Your task to perform on an android device: Show me productivity apps on the Play Store Image 0: 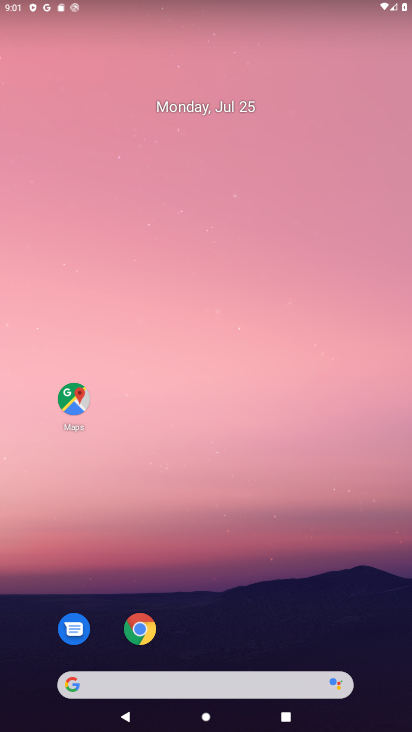
Step 0: drag from (225, 643) to (222, 149)
Your task to perform on an android device: Show me productivity apps on the Play Store Image 1: 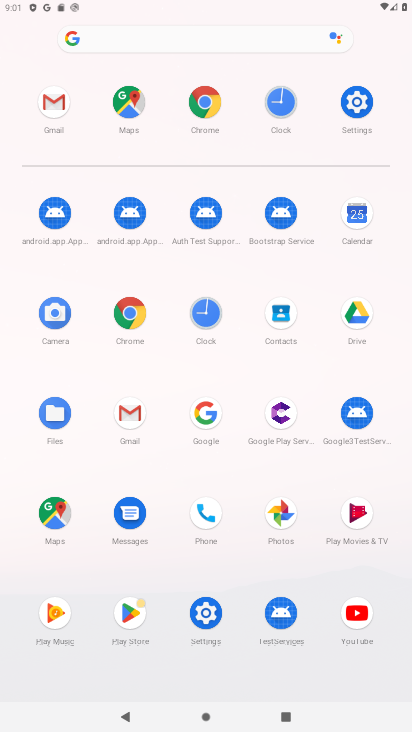
Step 1: click (143, 623)
Your task to perform on an android device: Show me productivity apps on the Play Store Image 2: 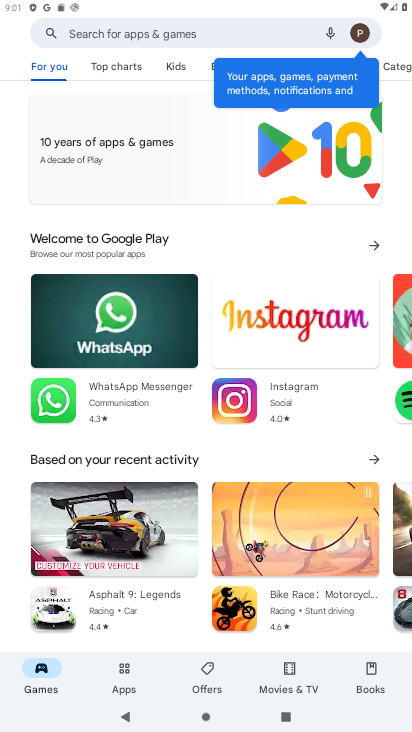
Step 2: click (128, 669)
Your task to perform on an android device: Show me productivity apps on the Play Store Image 3: 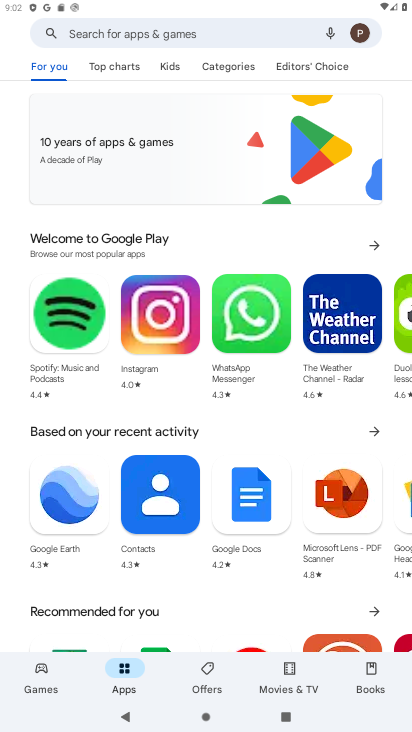
Step 3: click (233, 71)
Your task to perform on an android device: Show me productivity apps on the Play Store Image 4: 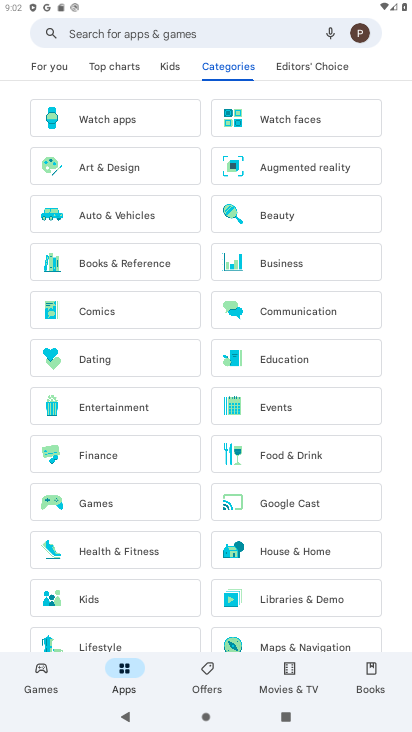
Step 4: drag from (205, 632) to (265, 143)
Your task to perform on an android device: Show me productivity apps on the Play Store Image 5: 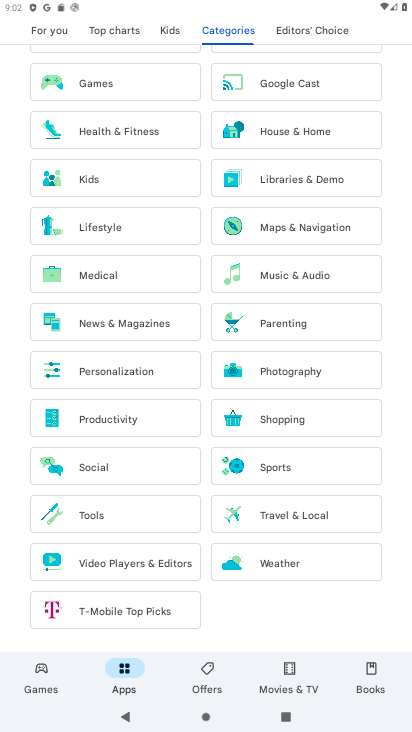
Step 5: drag from (200, 640) to (224, 214)
Your task to perform on an android device: Show me productivity apps on the Play Store Image 6: 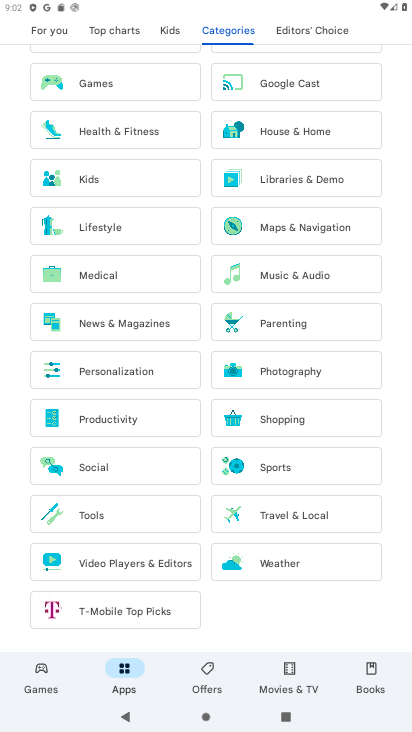
Step 6: click (113, 414)
Your task to perform on an android device: Show me productivity apps on the Play Store Image 7: 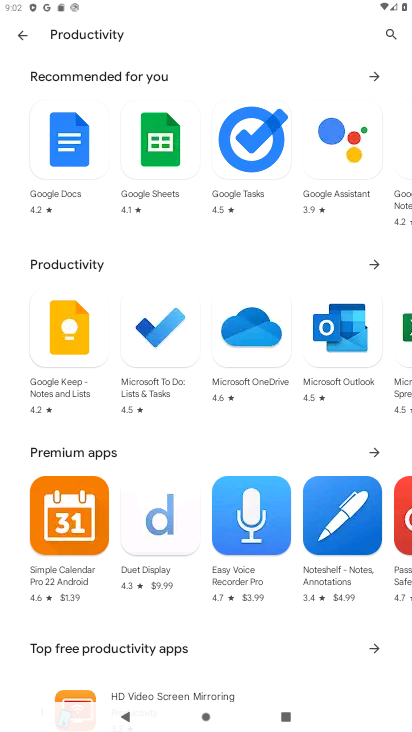
Step 7: task complete